Your task to perform on an android device: turn on location history Image 0: 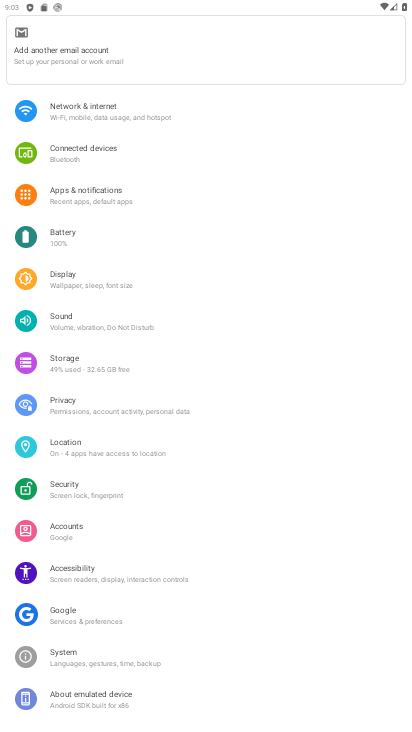
Step 0: press home button
Your task to perform on an android device: turn on location history Image 1: 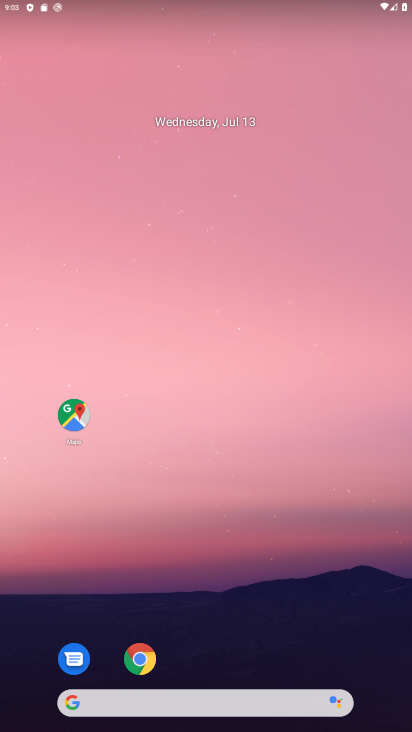
Step 1: click (74, 416)
Your task to perform on an android device: turn on location history Image 2: 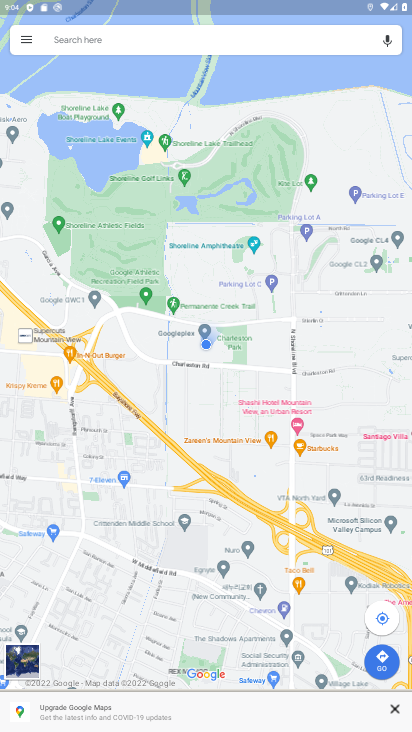
Step 2: click (26, 41)
Your task to perform on an android device: turn on location history Image 3: 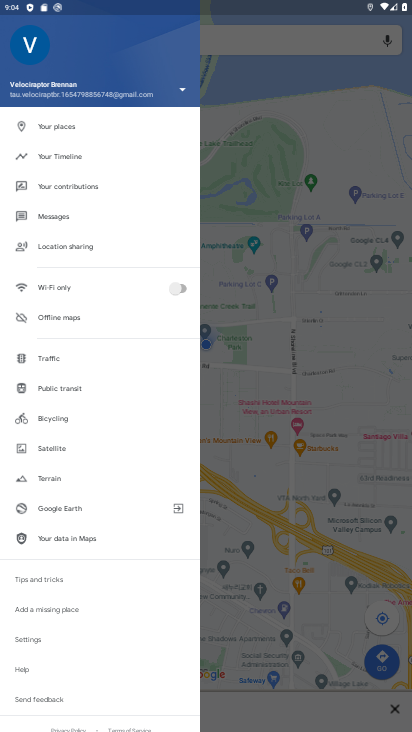
Step 3: click (17, 639)
Your task to perform on an android device: turn on location history Image 4: 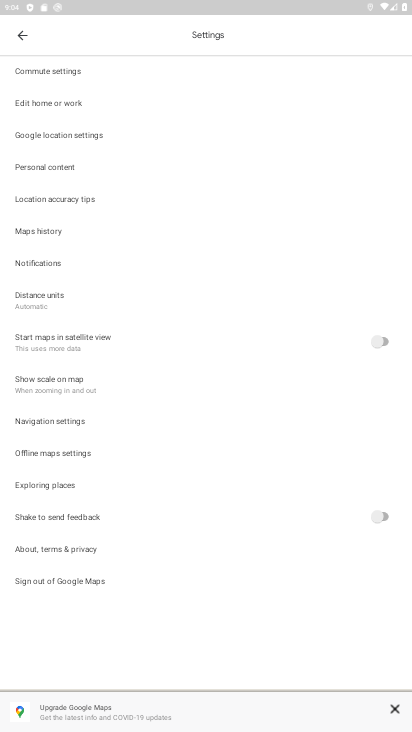
Step 4: click (43, 167)
Your task to perform on an android device: turn on location history Image 5: 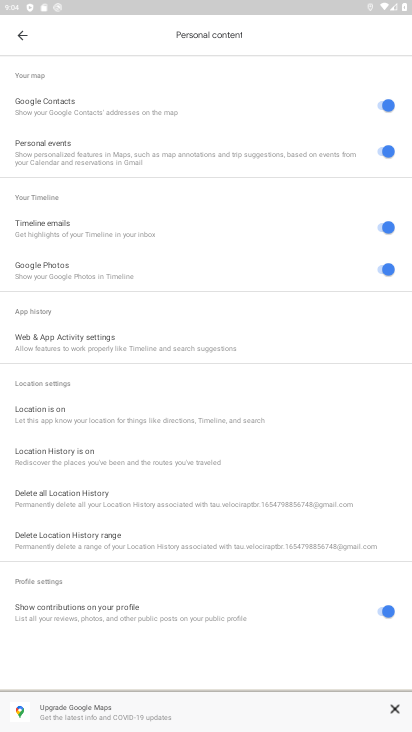
Step 5: click (64, 459)
Your task to perform on an android device: turn on location history Image 6: 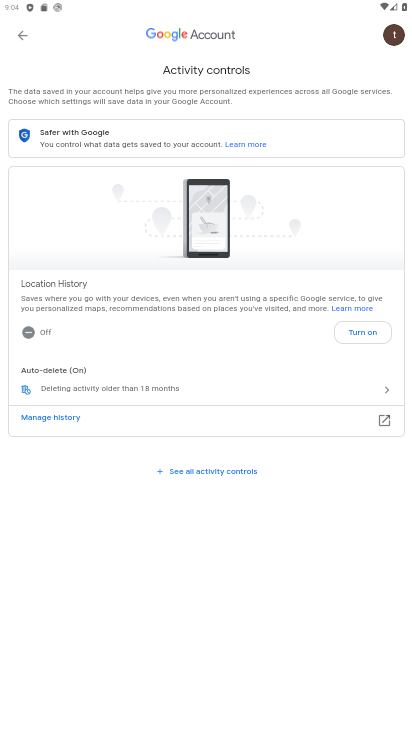
Step 6: click (363, 327)
Your task to perform on an android device: turn on location history Image 7: 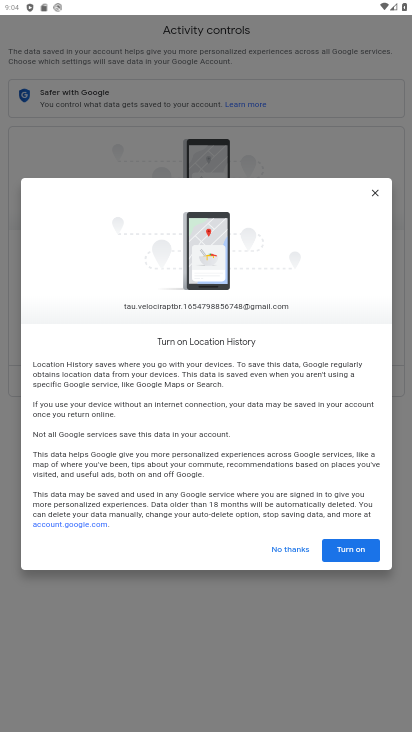
Step 7: click (351, 552)
Your task to perform on an android device: turn on location history Image 8: 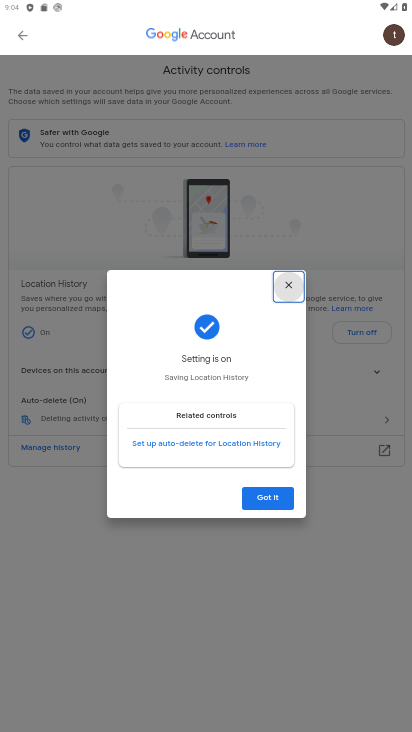
Step 8: click (260, 495)
Your task to perform on an android device: turn on location history Image 9: 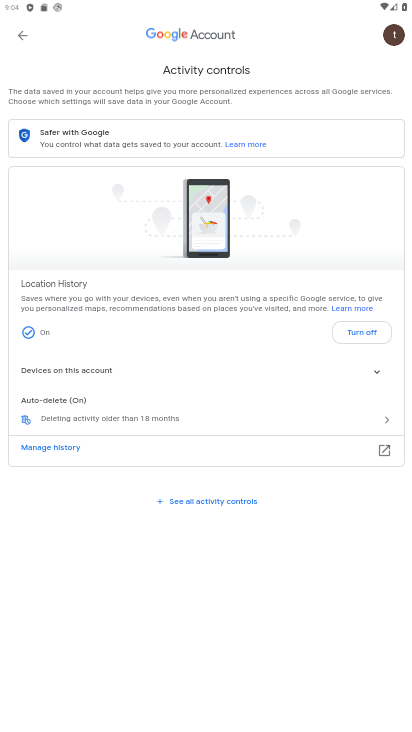
Step 9: task complete